Your task to perform on an android device: Go to Yahoo.com Image 0: 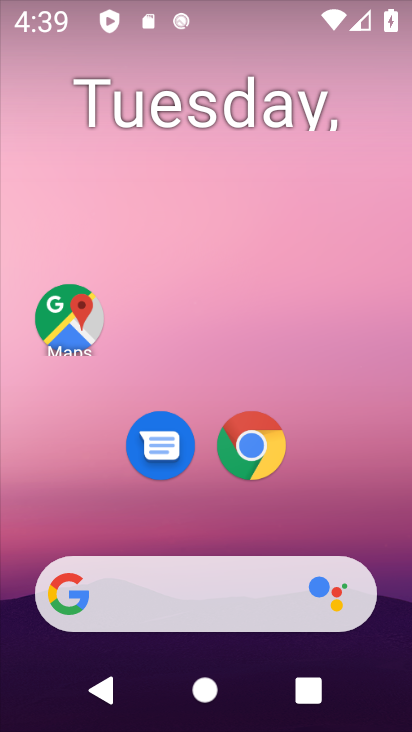
Step 0: click (380, 101)
Your task to perform on an android device: Go to Yahoo.com Image 1: 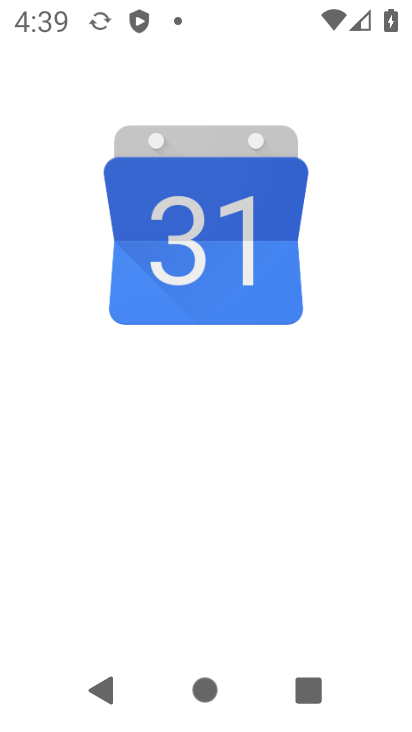
Step 1: drag from (314, 479) to (331, 228)
Your task to perform on an android device: Go to Yahoo.com Image 2: 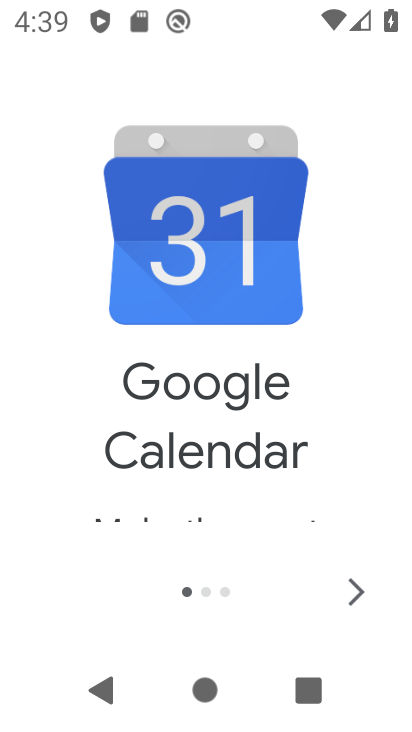
Step 2: press home button
Your task to perform on an android device: Go to Yahoo.com Image 3: 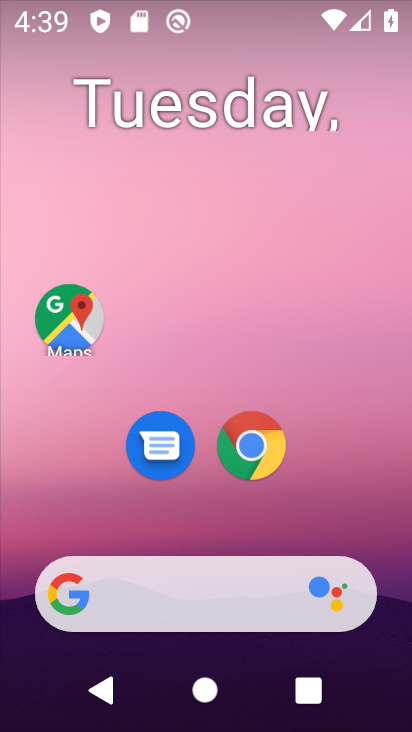
Step 3: click (252, 468)
Your task to perform on an android device: Go to Yahoo.com Image 4: 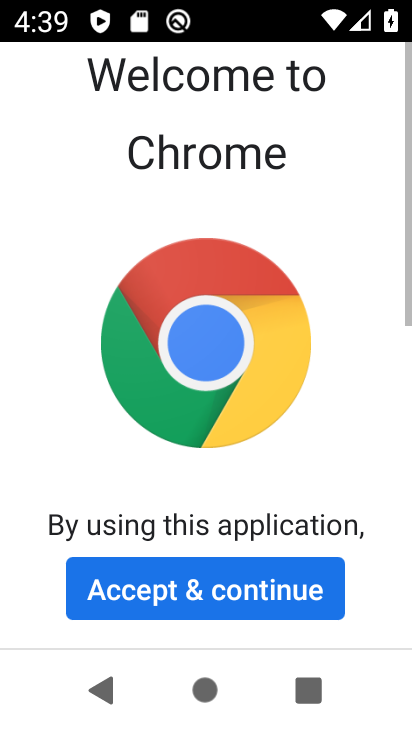
Step 4: click (131, 583)
Your task to perform on an android device: Go to Yahoo.com Image 5: 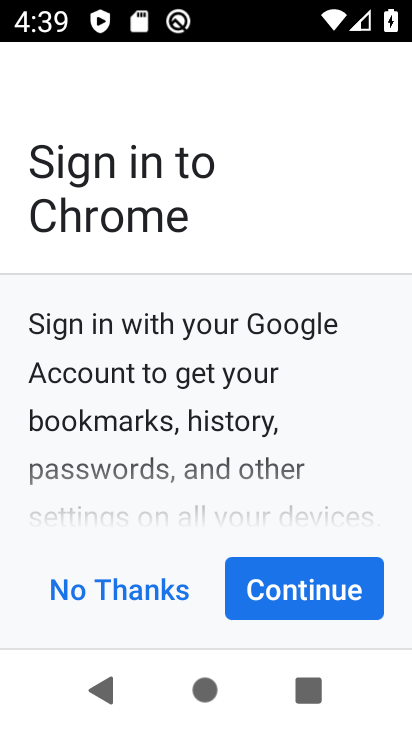
Step 5: click (268, 600)
Your task to perform on an android device: Go to Yahoo.com Image 6: 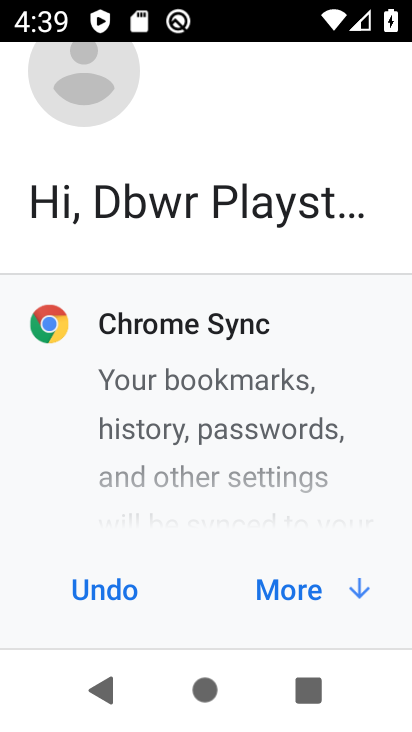
Step 6: click (287, 574)
Your task to perform on an android device: Go to Yahoo.com Image 7: 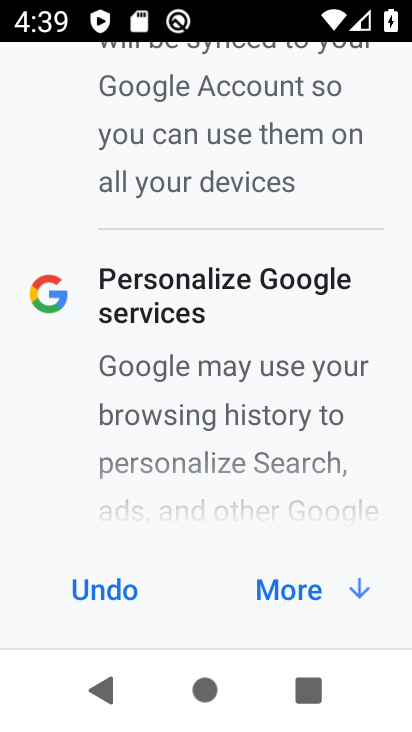
Step 7: click (300, 582)
Your task to perform on an android device: Go to Yahoo.com Image 8: 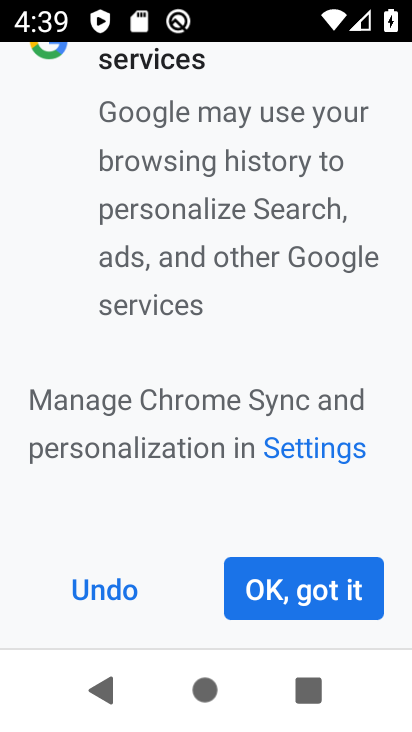
Step 8: click (310, 594)
Your task to perform on an android device: Go to Yahoo.com Image 9: 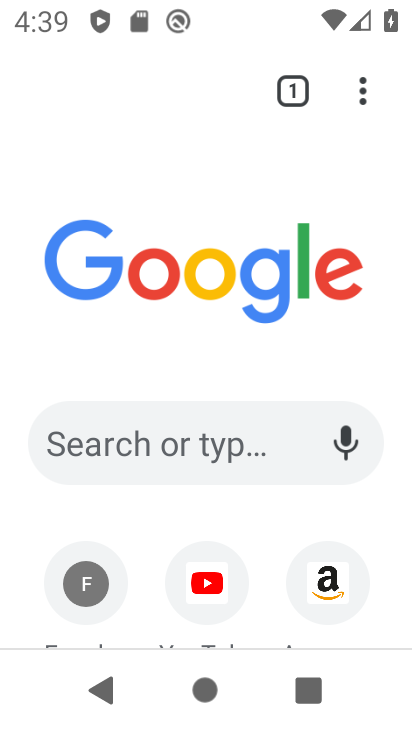
Step 9: drag from (254, 598) to (284, 376)
Your task to perform on an android device: Go to Yahoo.com Image 10: 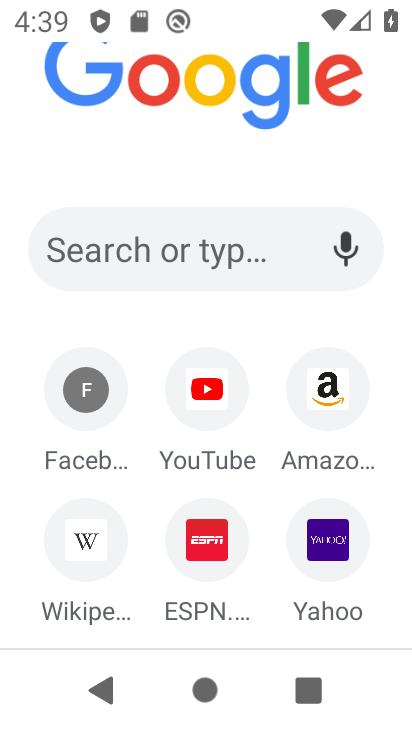
Step 10: click (325, 538)
Your task to perform on an android device: Go to Yahoo.com Image 11: 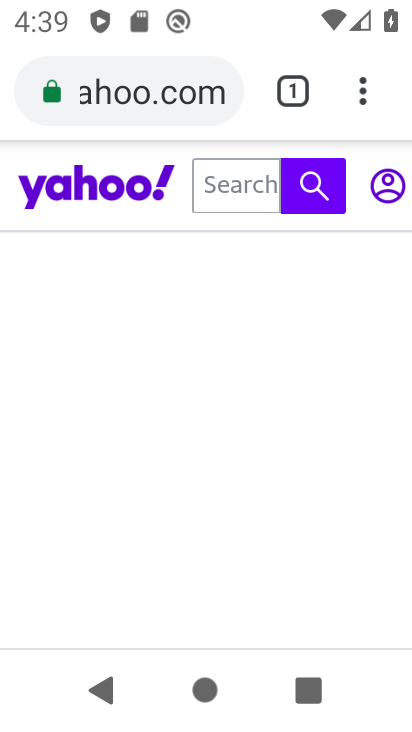
Step 11: task complete